Your task to perform on an android device: Open calendar and show me the third week of next month Image 0: 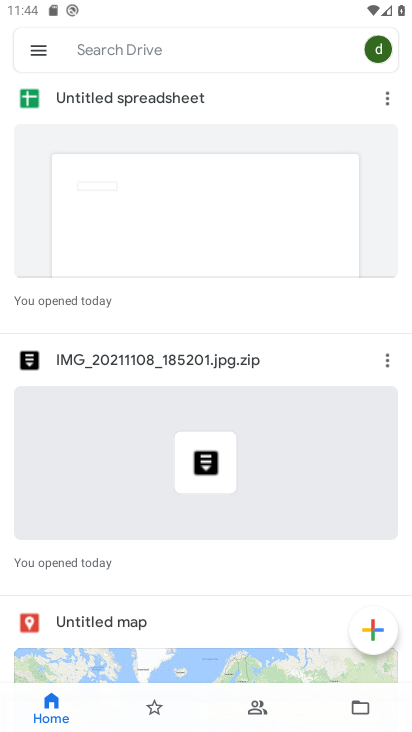
Step 0: press home button
Your task to perform on an android device: Open calendar and show me the third week of next month Image 1: 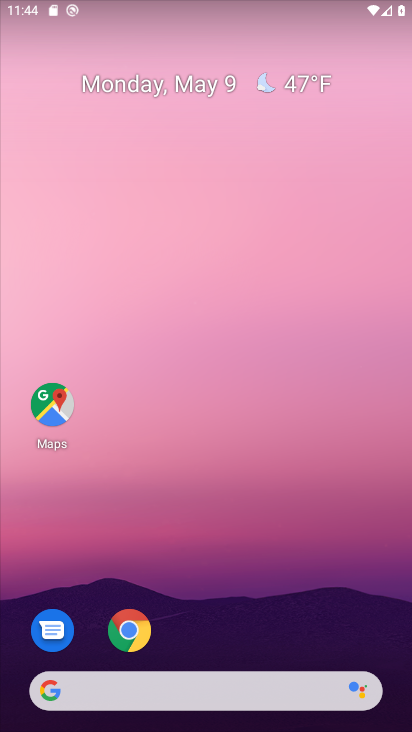
Step 1: drag from (212, 485) to (162, 236)
Your task to perform on an android device: Open calendar and show me the third week of next month Image 2: 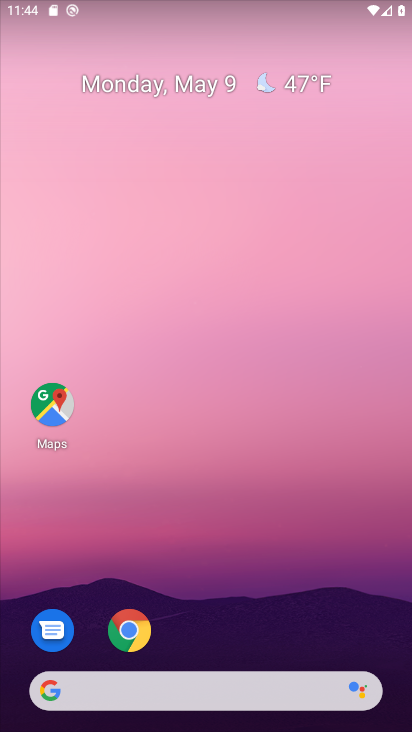
Step 2: drag from (291, 632) to (93, 77)
Your task to perform on an android device: Open calendar and show me the third week of next month Image 3: 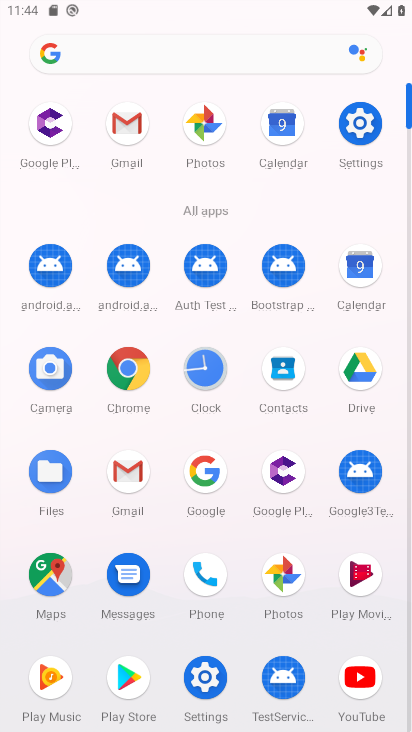
Step 3: click (282, 125)
Your task to perform on an android device: Open calendar and show me the third week of next month Image 4: 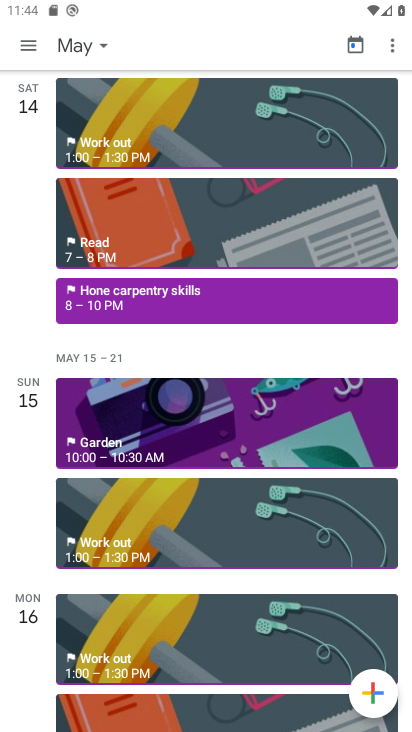
Step 4: click (80, 48)
Your task to perform on an android device: Open calendar and show me the third week of next month Image 5: 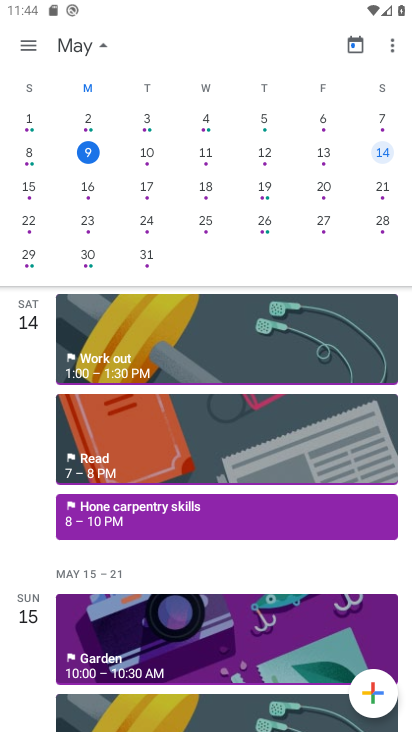
Step 5: drag from (322, 183) to (377, 154)
Your task to perform on an android device: Open calendar and show me the third week of next month Image 6: 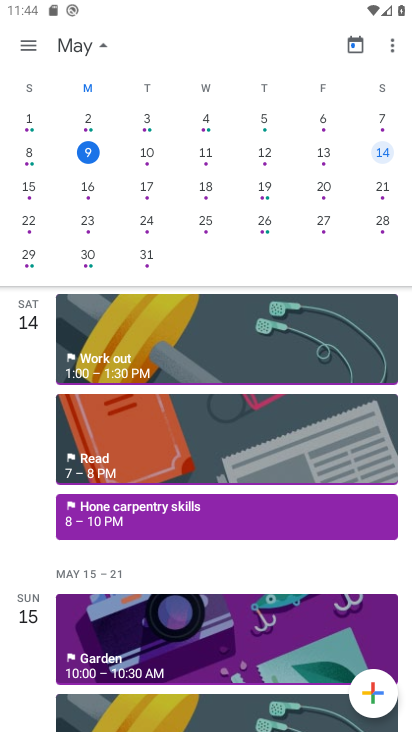
Step 6: drag from (373, 154) to (27, 144)
Your task to perform on an android device: Open calendar and show me the third week of next month Image 7: 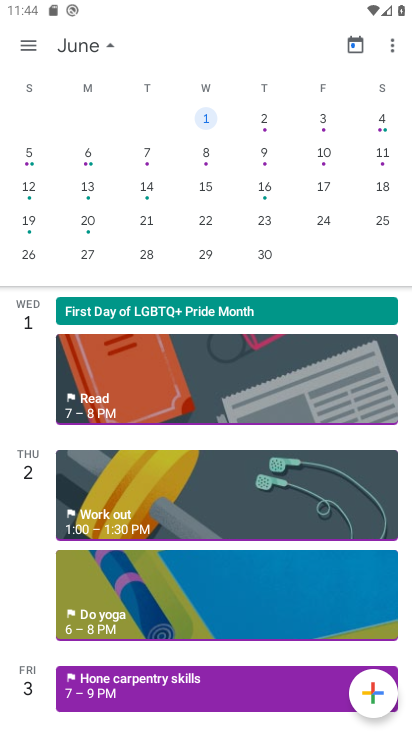
Step 7: click (25, 184)
Your task to perform on an android device: Open calendar and show me the third week of next month Image 8: 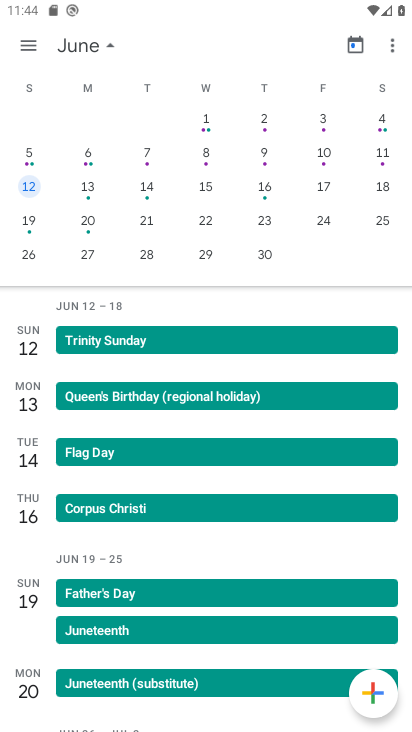
Step 8: click (24, 41)
Your task to perform on an android device: Open calendar and show me the third week of next month Image 9: 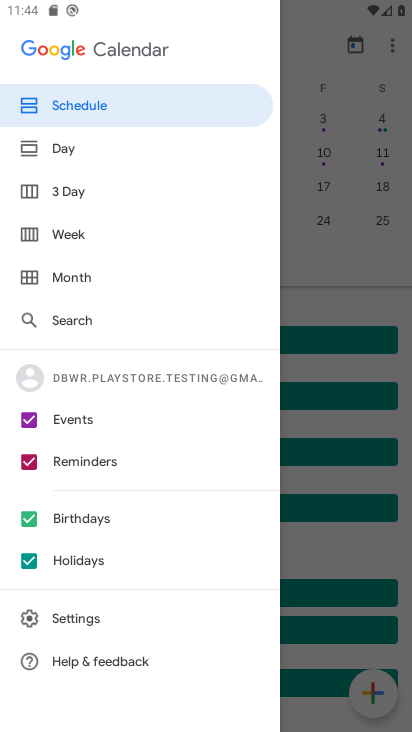
Step 9: click (59, 235)
Your task to perform on an android device: Open calendar and show me the third week of next month Image 10: 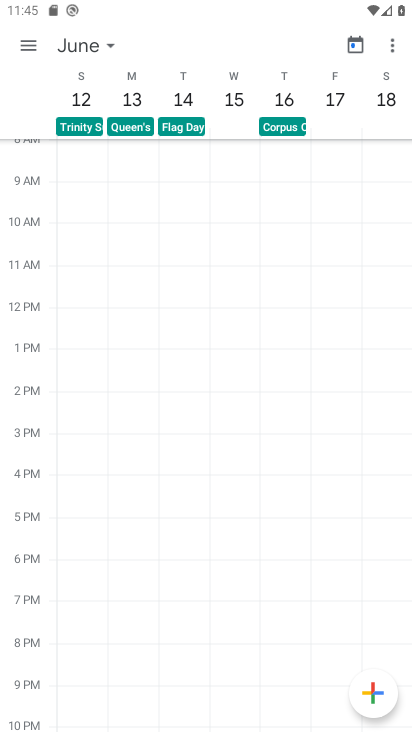
Step 10: task complete